Your task to perform on an android device: delete the emails in spam in the gmail app Image 0: 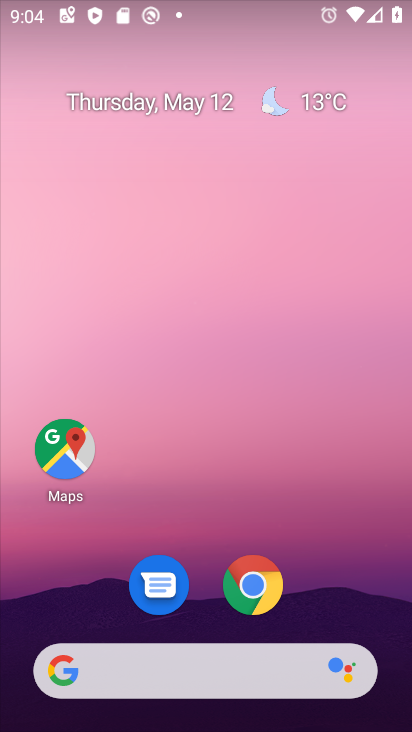
Step 0: drag from (260, 502) to (169, 38)
Your task to perform on an android device: delete the emails in spam in the gmail app Image 1: 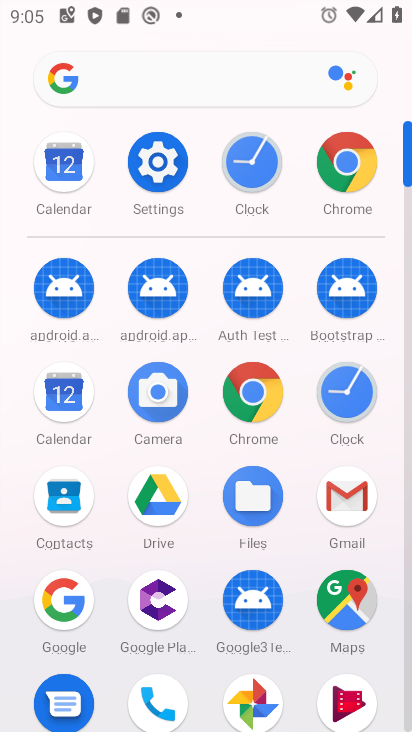
Step 1: click (346, 481)
Your task to perform on an android device: delete the emails in spam in the gmail app Image 2: 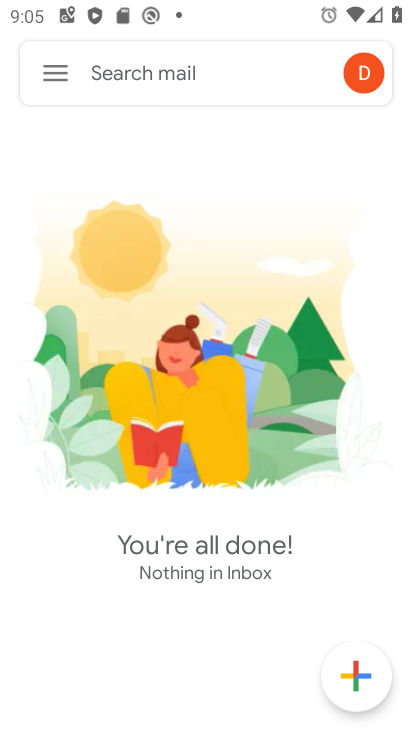
Step 2: click (43, 67)
Your task to perform on an android device: delete the emails in spam in the gmail app Image 3: 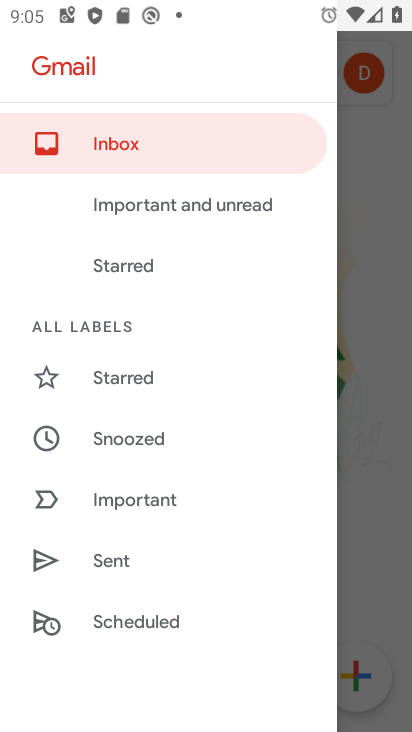
Step 3: drag from (248, 460) to (184, 215)
Your task to perform on an android device: delete the emails in spam in the gmail app Image 4: 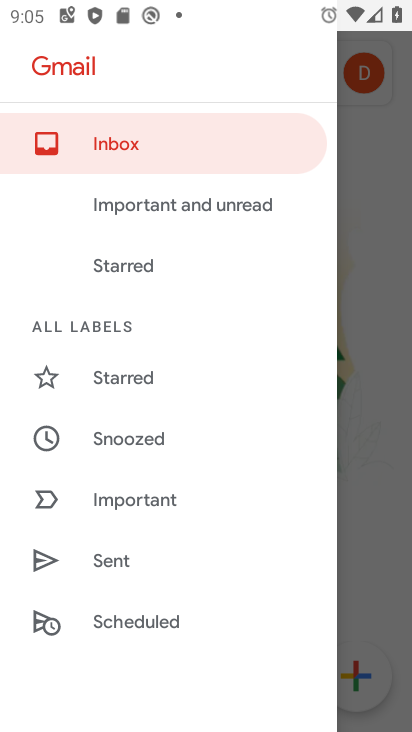
Step 4: drag from (144, 541) to (172, 187)
Your task to perform on an android device: delete the emails in spam in the gmail app Image 5: 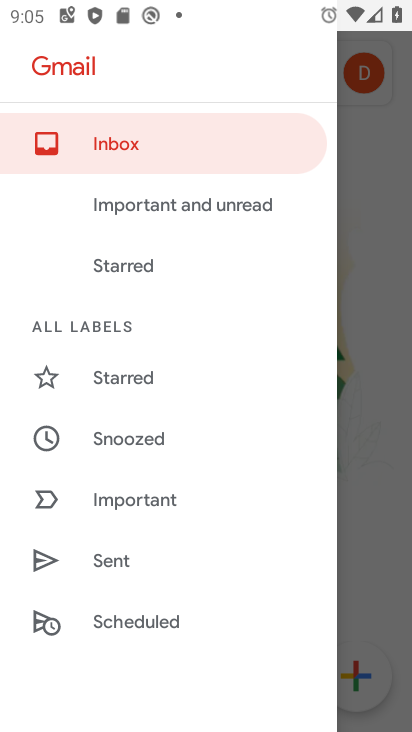
Step 5: drag from (187, 590) to (195, 185)
Your task to perform on an android device: delete the emails in spam in the gmail app Image 6: 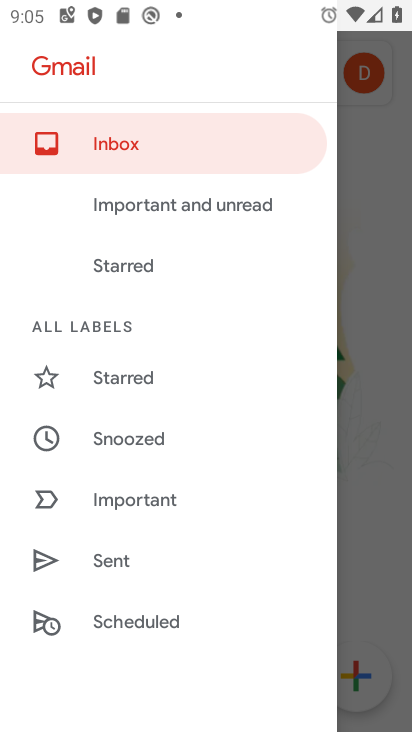
Step 6: drag from (188, 557) to (230, 151)
Your task to perform on an android device: delete the emails in spam in the gmail app Image 7: 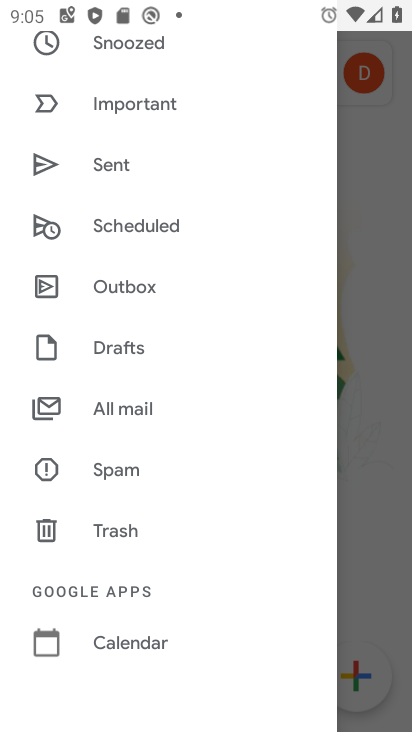
Step 7: click (118, 463)
Your task to perform on an android device: delete the emails in spam in the gmail app Image 8: 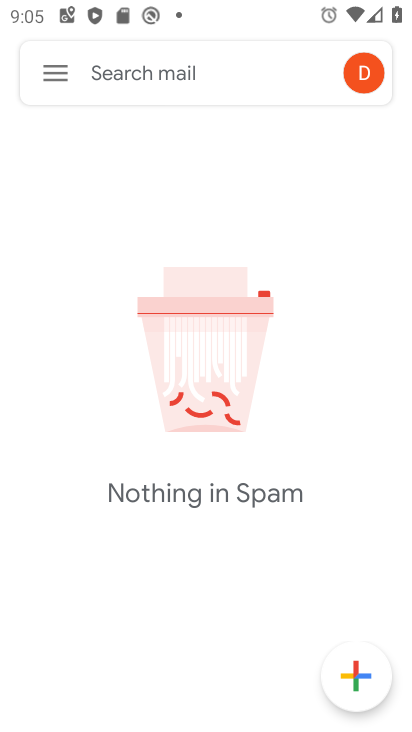
Step 8: task complete